Your task to perform on an android device: find which apps use the phone's location Image 0: 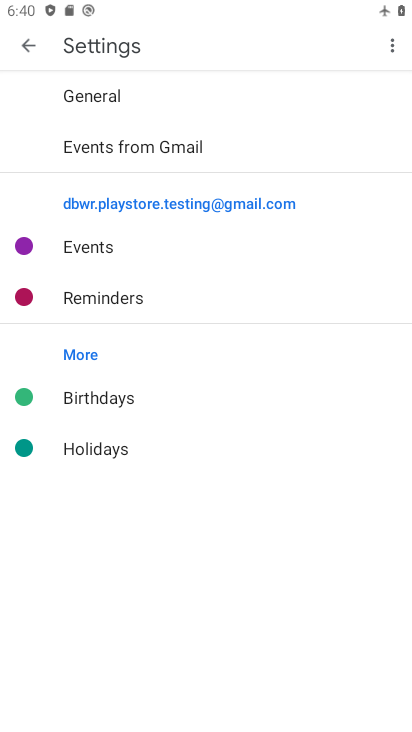
Step 0: press home button
Your task to perform on an android device: find which apps use the phone's location Image 1: 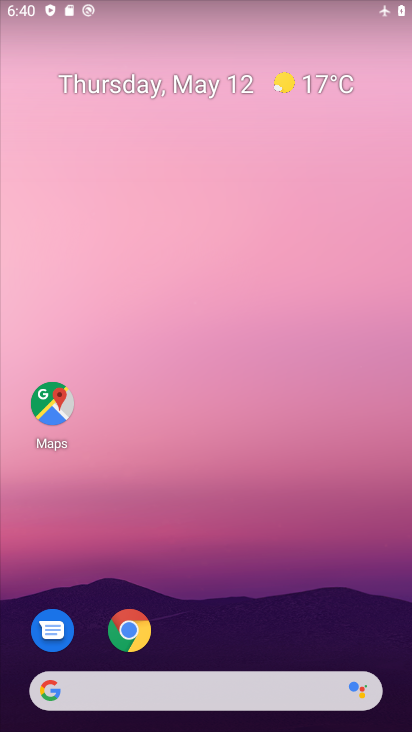
Step 1: drag from (233, 530) to (168, 70)
Your task to perform on an android device: find which apps use the phone's location Image 2: 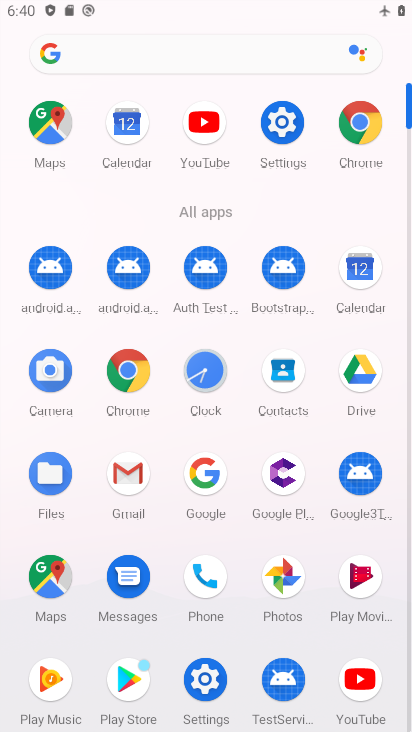
Step 2: click (276, 130)
Your task to perform on an android device: find which apps use the phone's location Image 3: 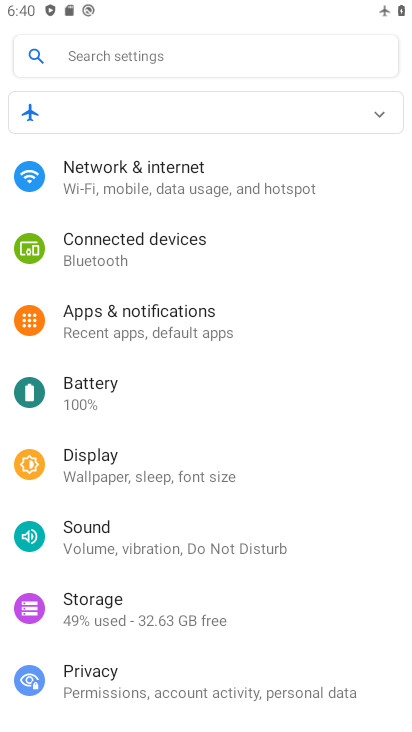
Step 3: drag from (132, 644) to (103, 419)
Your task to perform on an android device: find which apps use the phone's location Image 4: 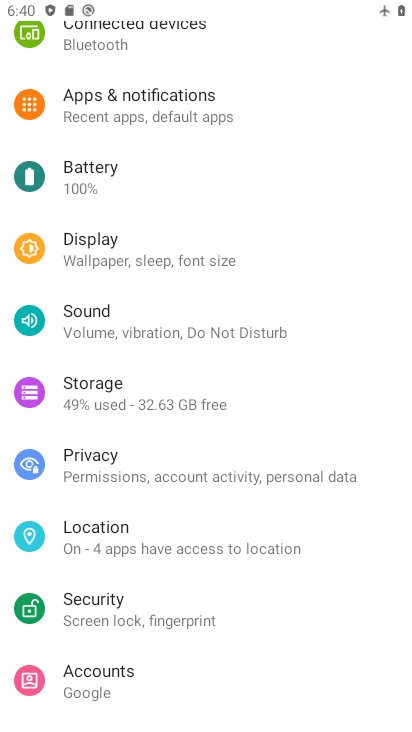
Step 4: click (107, 544)
Your task to perform on an android device: find which apps use the phone's location Image 5: 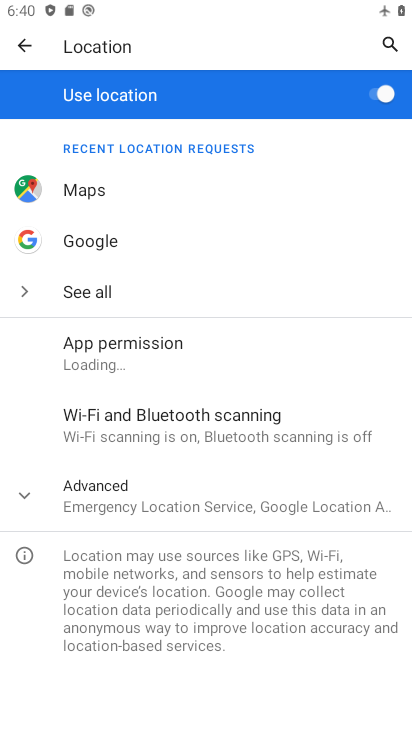
Step 5: click (158, 347)
Your task to perform on an android device: find which apps use the phone's location Image 6: 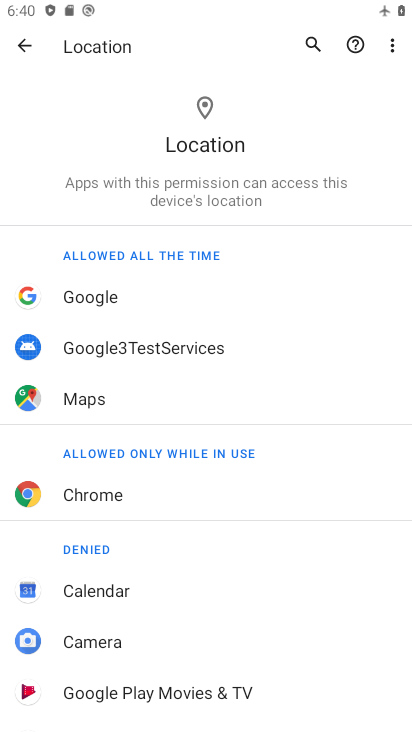
Step 6: click (158, 347)
Your task to perform on an android device: find which apps use the phone's location Image 7: 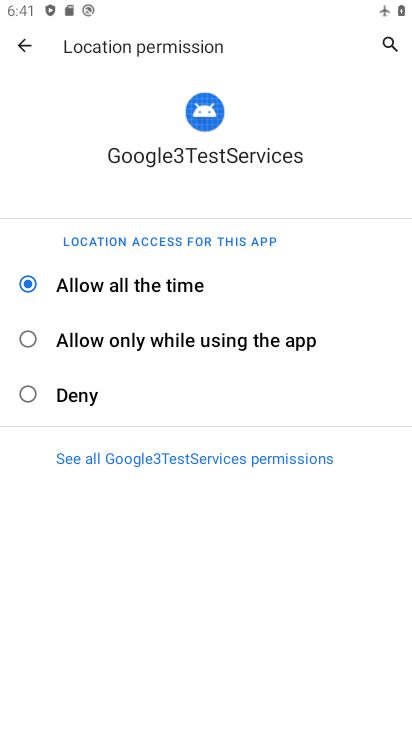
Step 7: press back button
Your task to perform on an android device: find which apps use the phone's location Image 8: 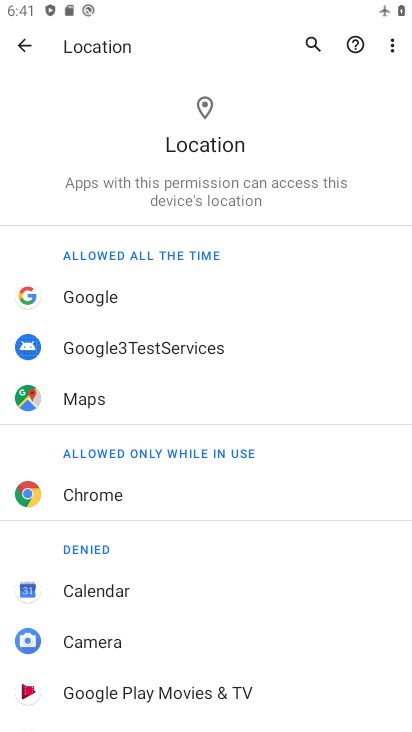
Step 8: drag from (159, 686) to (134, 357)
Your task to perform on an android device: find which apps use the phone's location Image 9: 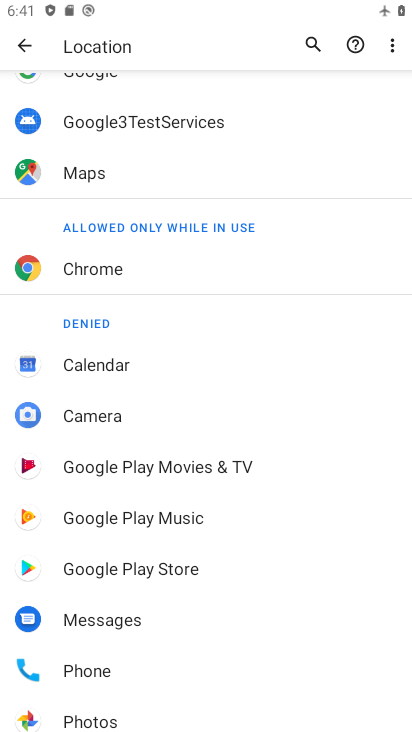
Step 9: click (128, 686)
Your task to perform on an android device: find which apps use the phone's location Image 10: 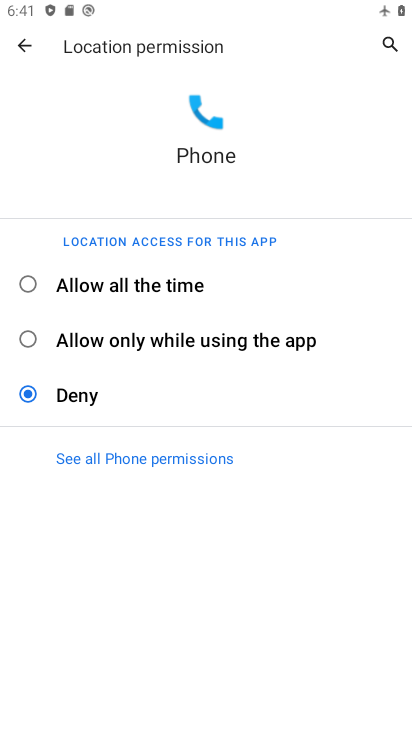
Step 10: click (130, 322)
Your task to perform on an android device: find which apps use the phone's location Image 11: 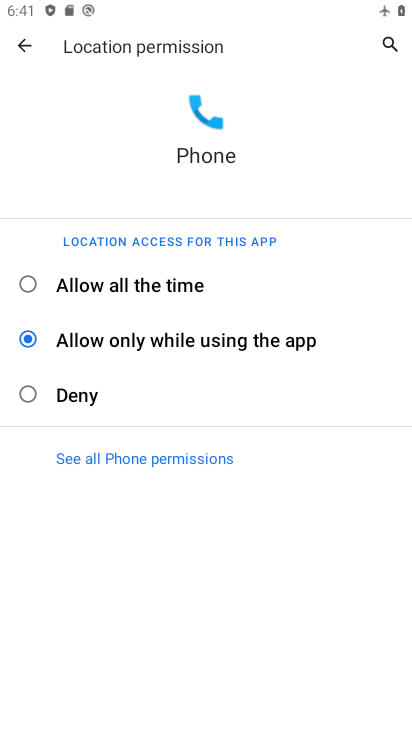
Step 11: click (104, 288)
Your task to perform on an android device: find which apps use the phone's location Image 12: 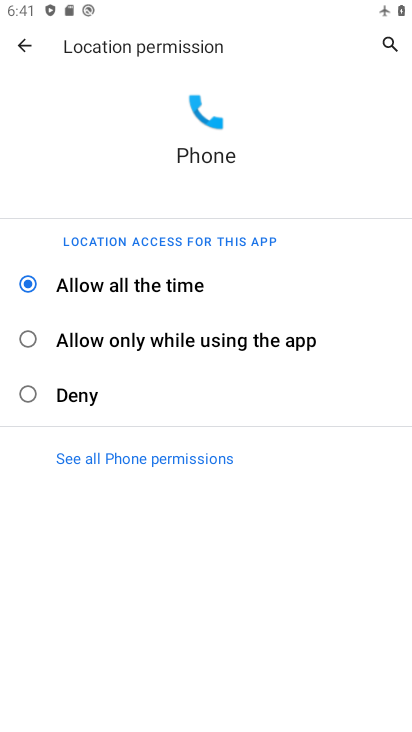
Step 12: task complete